Your task to perform on an android device: Open accessibility settings Image 0: 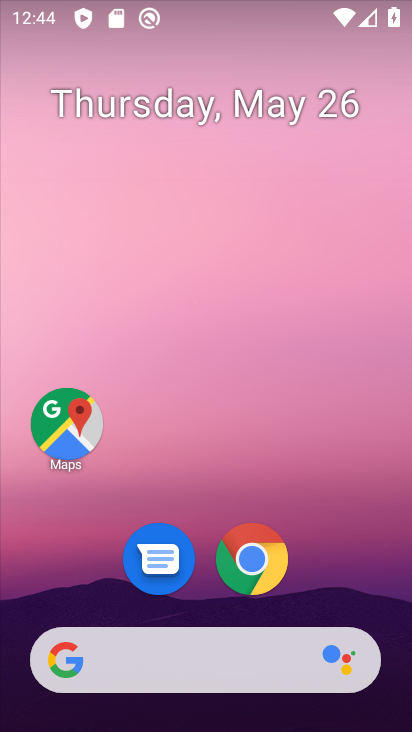
Step 0: press home button
Your task to perform on an android device: Open accessibility settings Image 1: 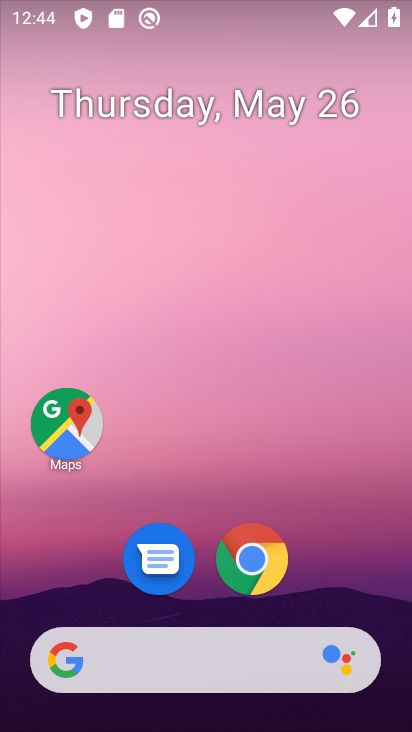
Step 1: drag from (188, 658) to (274, 76)
Your task to perform on an android device: Open accessibility settings Image 2: 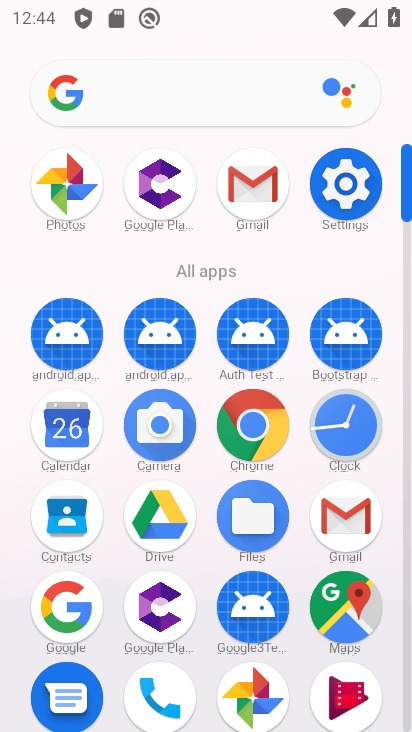
Step 2: click (330, 197)
Your task to perform on an android device: Open accessibility settings Image 3: 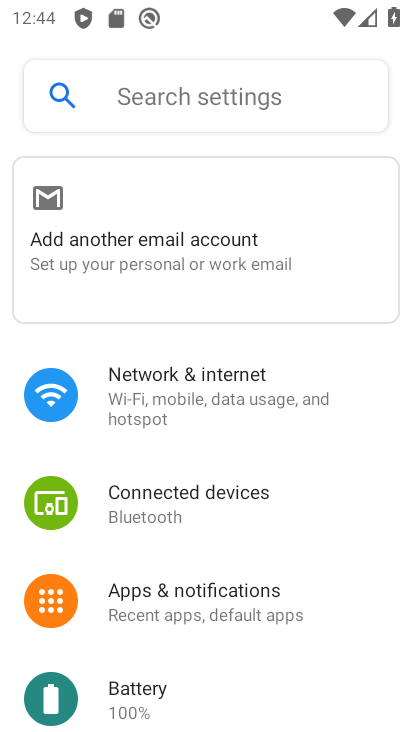
Step 3: drag from (197, 646) to (288, 150)
Your task to perform on an android device: Open accessibility settings Image 4: 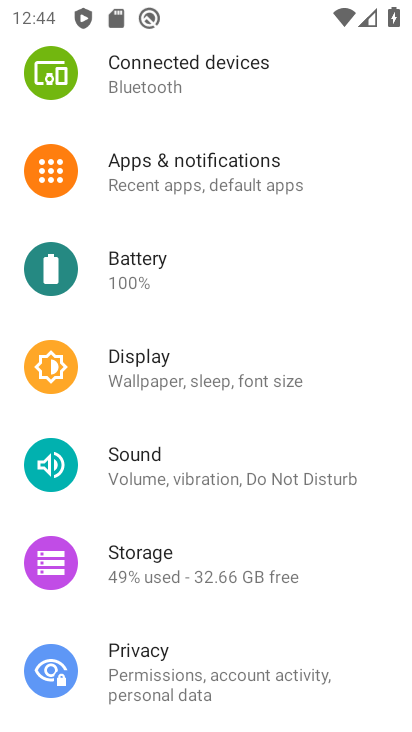
Step 4: drag from (268, 447) to (360, 148)
Your task to perform on an android device: Open accessibility settings Image 5: 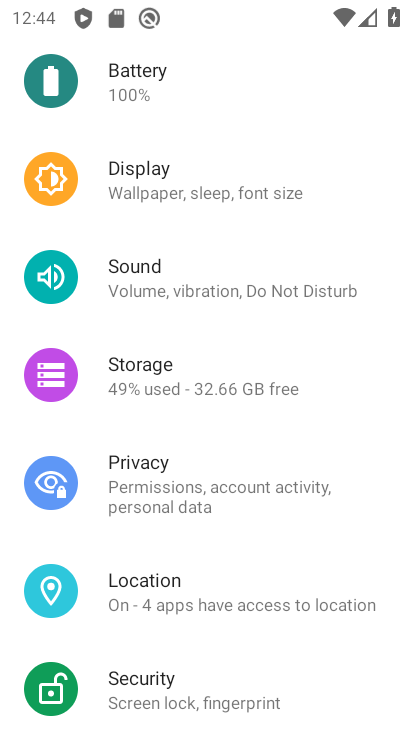
Step 5: drag from (195, 643) to (348, 58)
Your task to perform on an android device: Open accessibility settings Image 6: 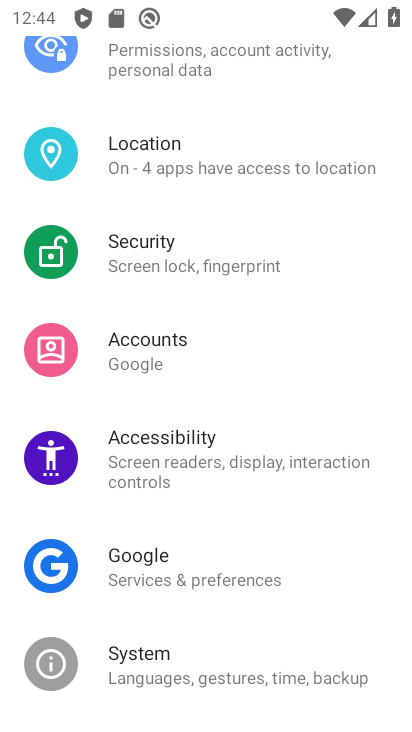
Step 6: click (203, 456)
Your task to perform on an android device: Open accessibility settings Image 7: 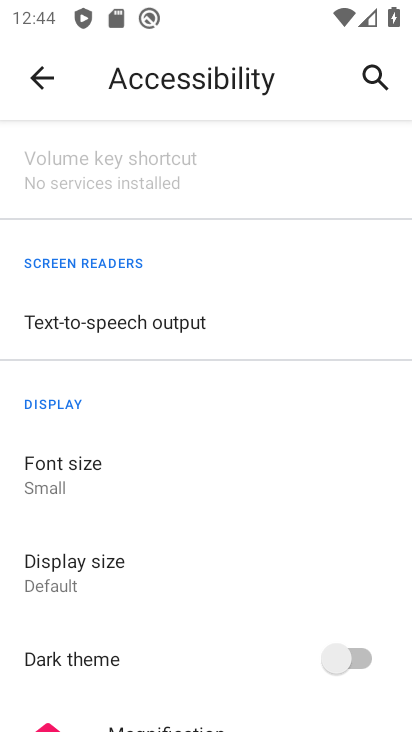
Step 7: task complete